Your task to perform on an android device: open chrome and create a bookmark for the current page Image 0: 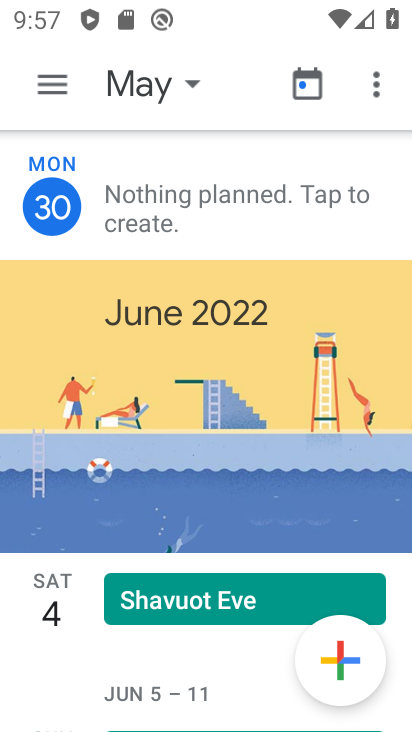
Step 0: press home button
Your task to perform on an android device: open chrome and create a bookmark for the current page Image 1: 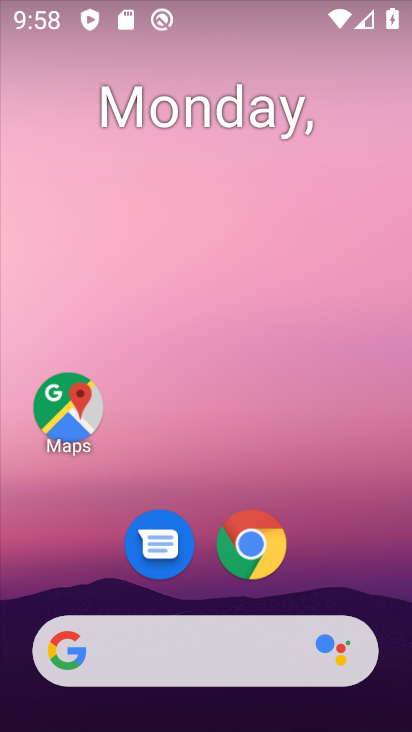
Step 1: drag from (321, 571) to (311, 65)
Your task to perform on an android device: open chrome and create a bookmark for the current page Image 2: 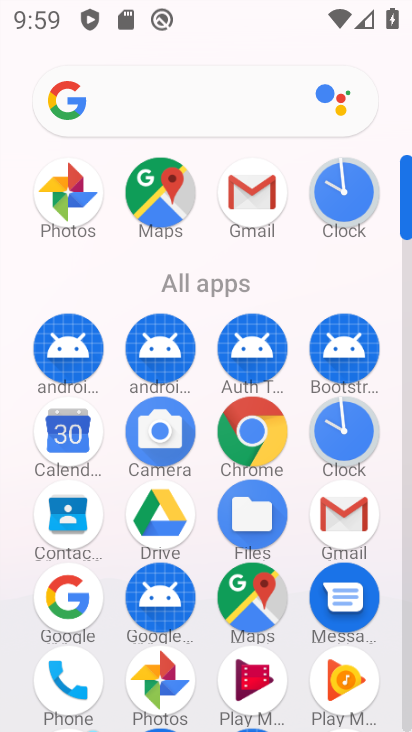
Step 2: click (257, 452)
Your task to perform on an android device: open chrome and create a bookmark for the current page Image 3: 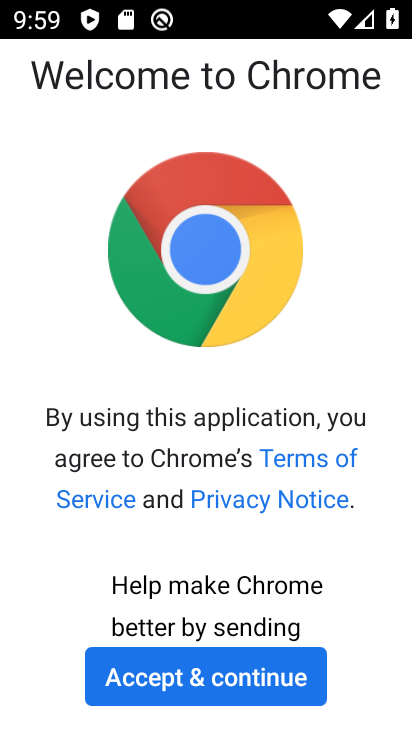
Step 3: click (223, 667)
Your task to perform on an android device: open chrome and create a bookmark for the current page Image 4: 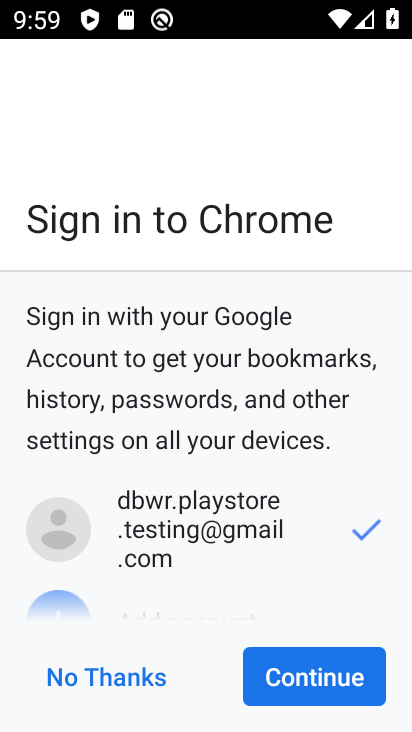
Step 4: click (342, 656)
Your task to perform on an android device: open chrome and create a bookmark for the current page Image 5: 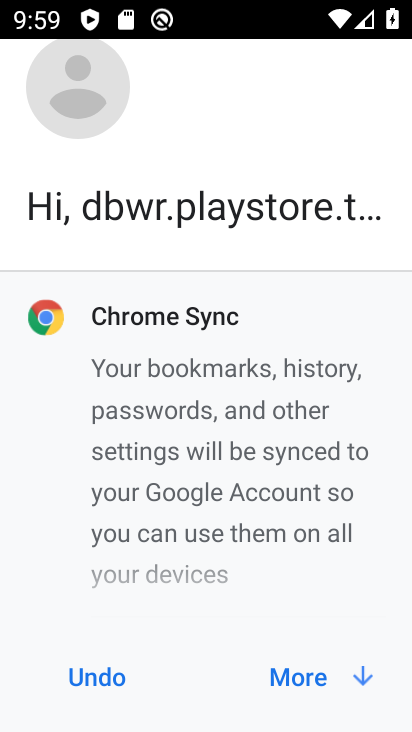
Step 5: click (342, 656)
Your task to perform on an android device: open chrome and create a bookmark for the current page Image 6: 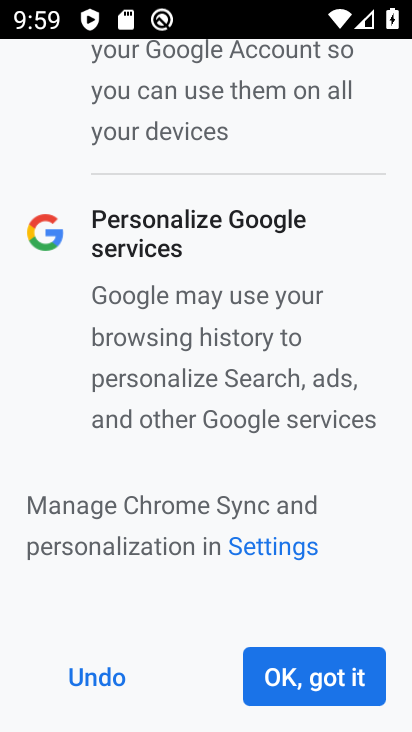
Step 6: click (342, 656)
Your task to perform on an android device: open chrome and create a bookmark for the current page Image 7: 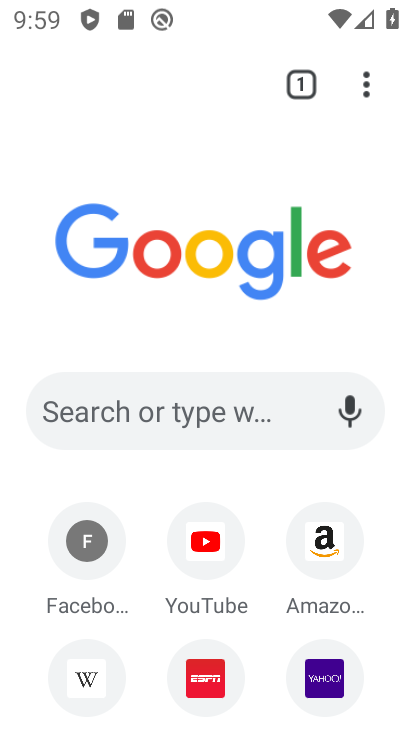
Step 7: task complete